Your task to perform on an android device: Open wifi settings Image 0: 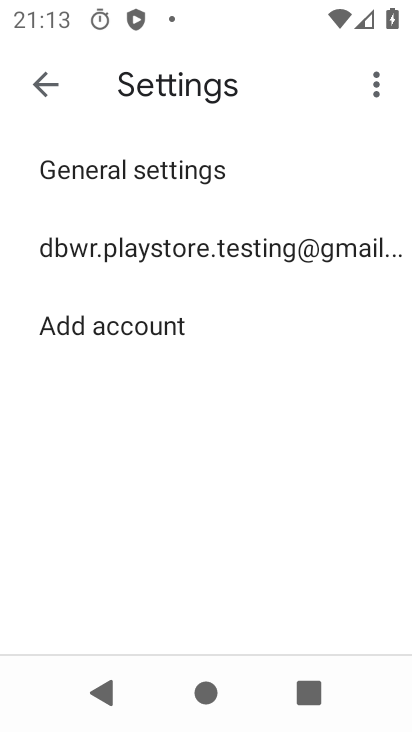
Step 0: press home button
Your task to perform on an android device: Open wifi settings Image 1: 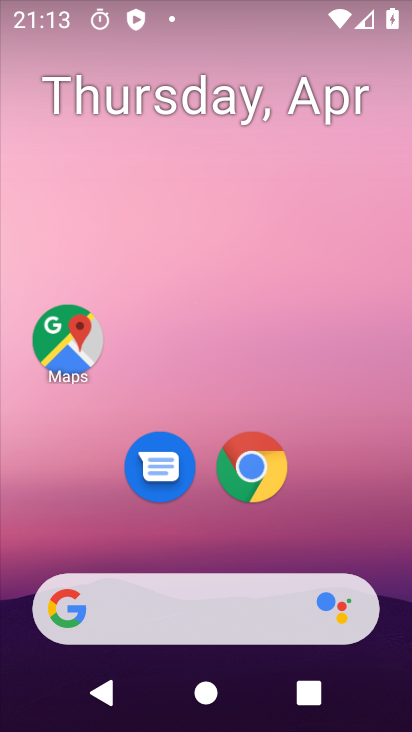
Step 1: drag from (185, 541) to (241, 40)
Your task to perform on an android device: Open wifi settings Image 2: 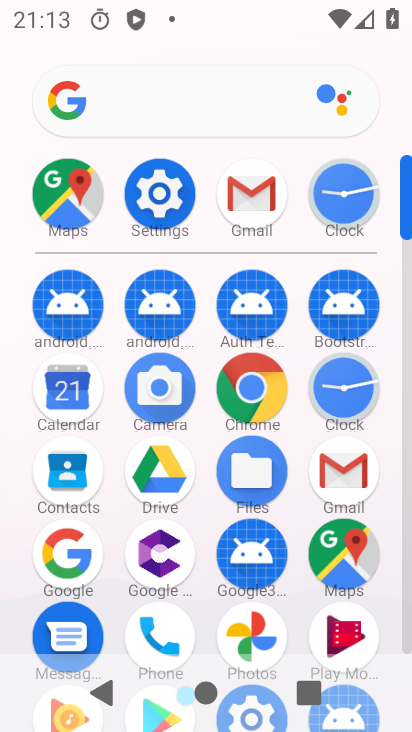
Step 2: click (163, 219)
Your task to perform on an android device: Open wifi settings Image 3: 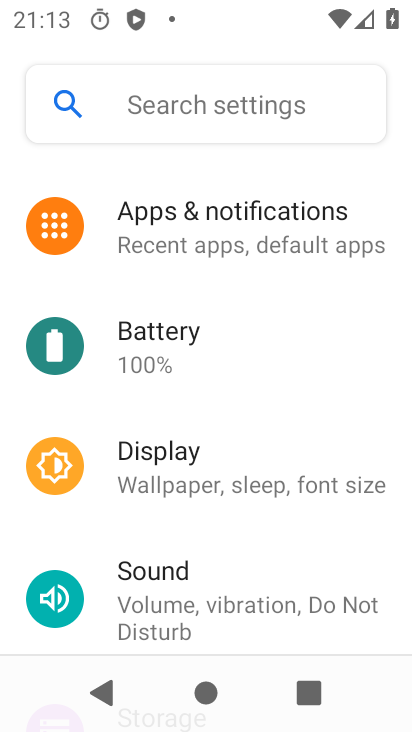
Step 3: drag from (212, 250) to (189, 638)
Your task to perform on an android device: Open wifi settings Image 4: 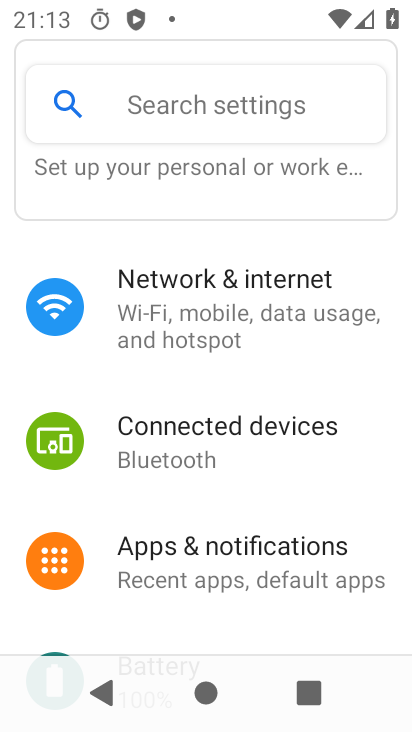
Step 4: click (192, 313)
Your task to perform on an android device: Open wifi settings Image 5: 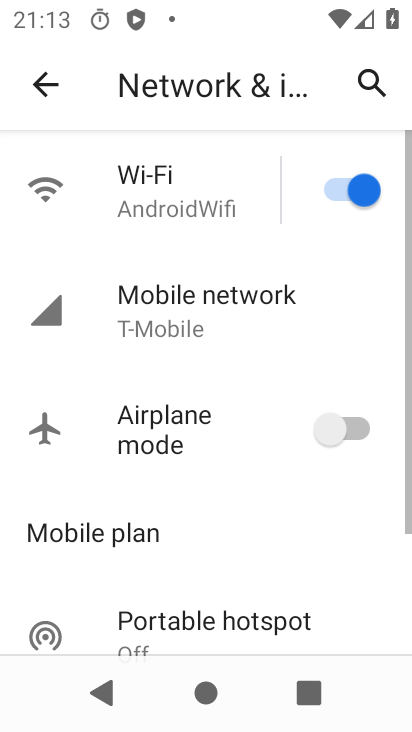
Step 5: click (160, 194)
Your task to perform on an android device: Open wifi settings Image 6: 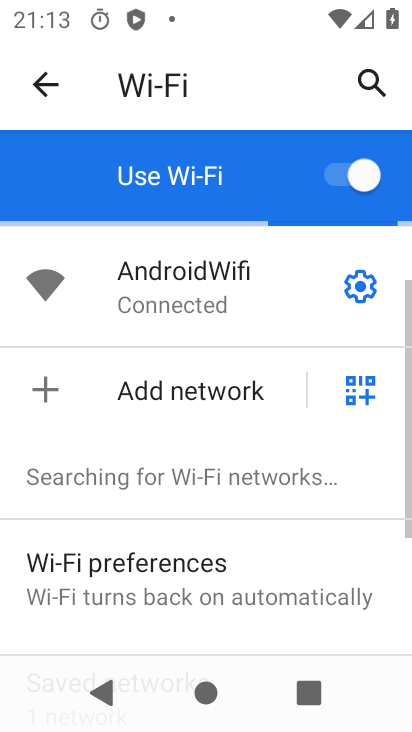
Step 6: task complete